Your task to perform on an android device: turn off wifi Image 0: 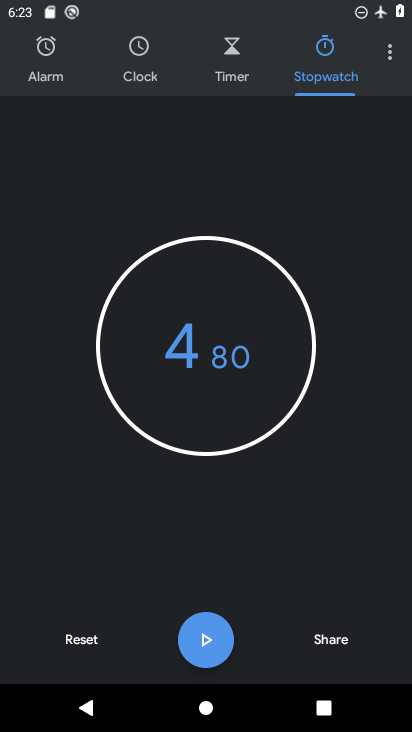
Step 0: press home button
Your task to perform on an android device: turn off wifi Image 1: 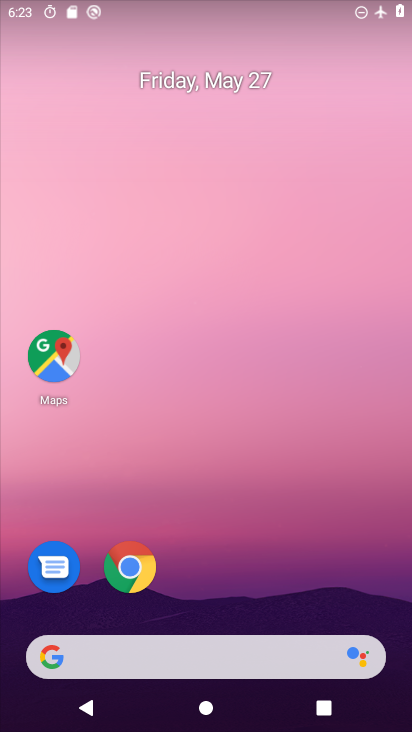
Step 1: drag from (222, 590) to (238, 202)
Your task to perform on an android device: turn off wifi Image 2: 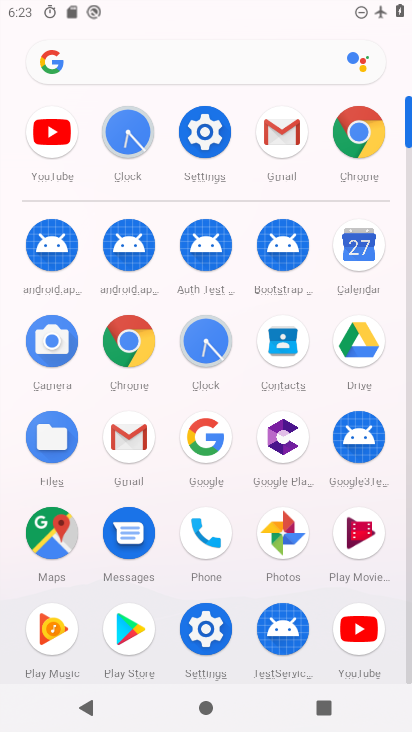
Step 2: click (201, 143)
Your task to perform on an android device: turn off wifi Image 3: 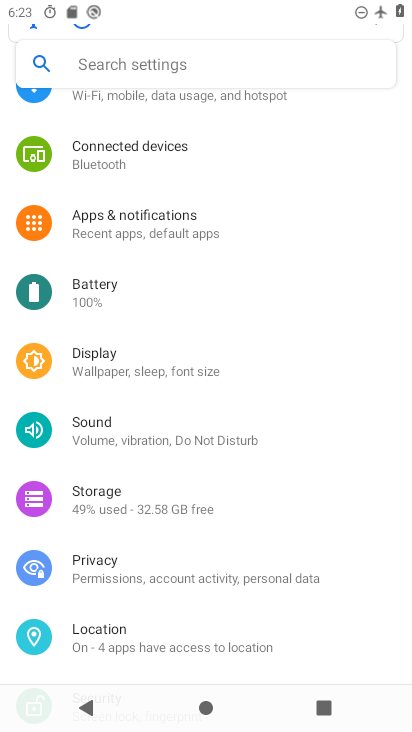
Step 3: drag from (136, 144) to (136, 478)
Your task to perform on an android device: turn off wifi Image 4: 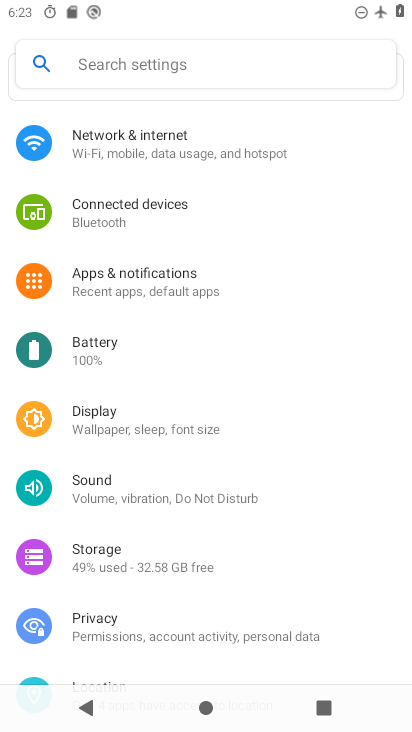
Step 4: click (118, 154)
Your task to perform on an android device: turn off wifi Image 5: 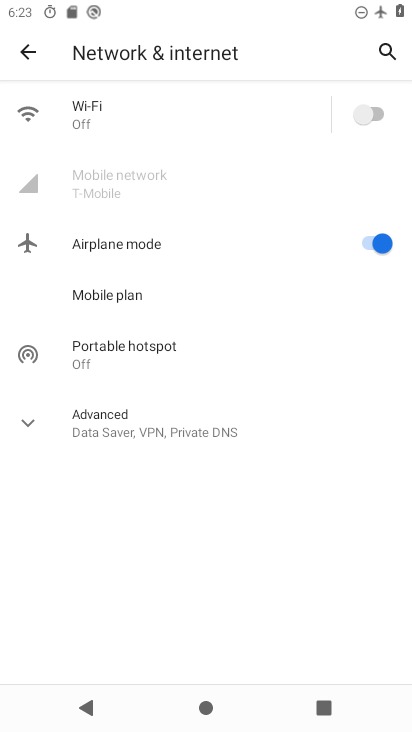
Step 5: task complete